Your task to perform on an android device: Search for Italian restaurants on Maps Image 0: 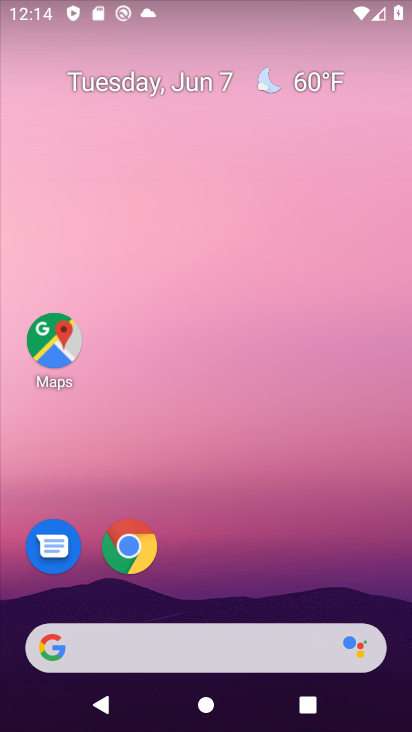
Step 0: drag from (171, 561) to (243, 151)
Your task to perform on an android device: Search for Italian restaurants on Maps Image 1: 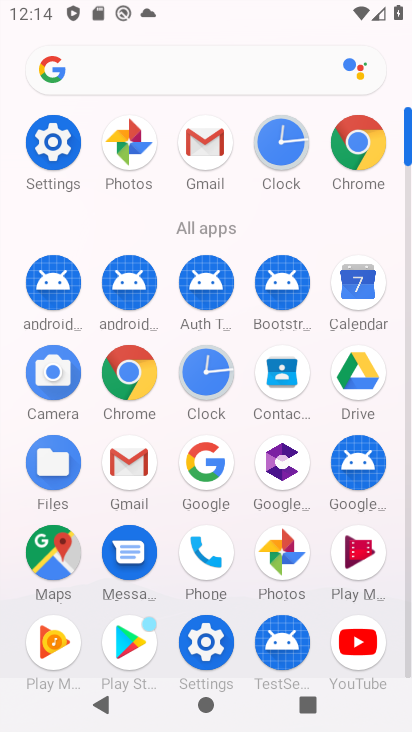
Step 1: click (56, 549)
Your task to perform on an android device: Search for Italian restaurants on Maps Image 2: 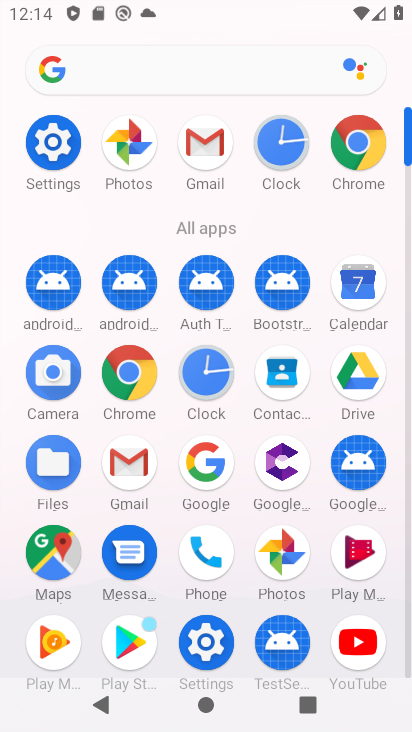
Step 2: click (56, 549)
Your task to perform on an android device: Search for Italian restaurants on Maps Image 3: 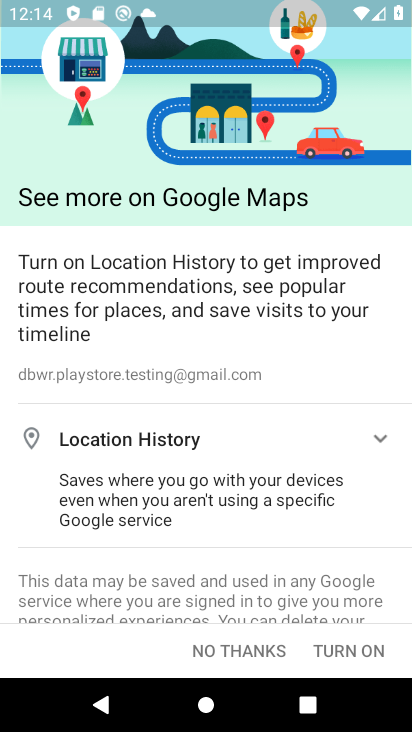
Step 3: click (279, 651)
Your task to perform on an android device: Search for Italian restaurants on Maps Image 4: 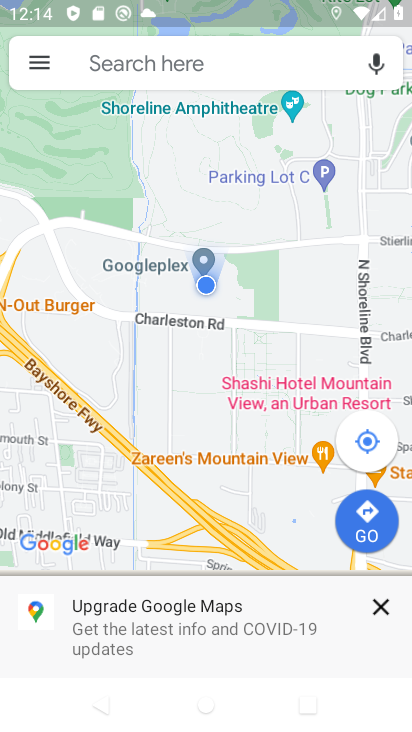
Step 4: click (182, 62)
Your task to perform on an android device: Search for Italian restaurants on Maps Image 5: 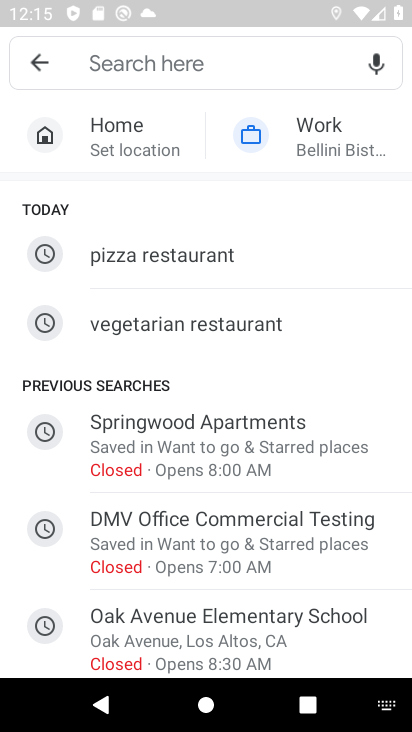
Step 5: type "italian"
Your task to perform on an android device: Search for Italian restaurants on Maps Image 6: 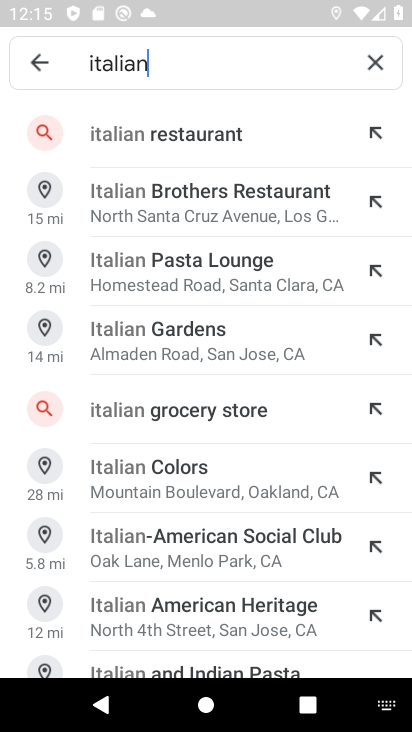
Step 6: click (196, 132)
Your task to perform on an android device: Search for Italian restaurants on Maps Image 7: 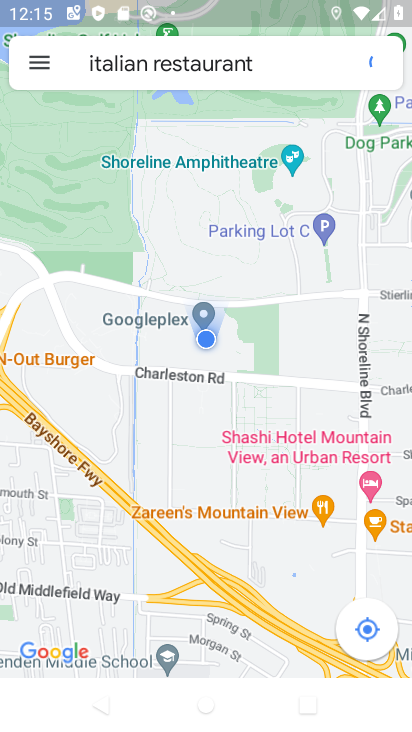
Step 7: task complete